Your task to perform on an android device: Show me popular videos on Youtube Image 0: 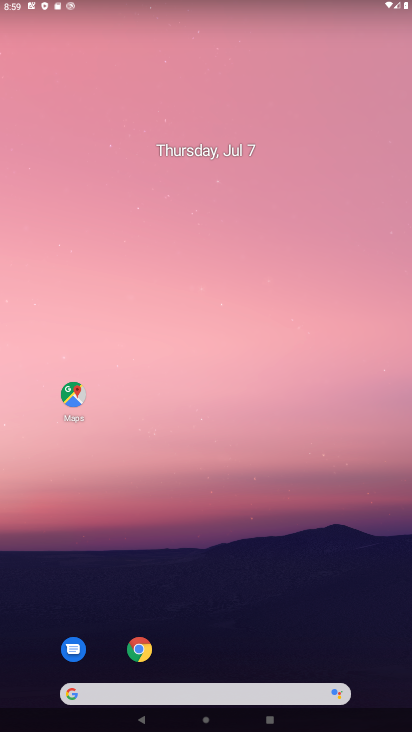
Step 0: drag from (229, 691) to (240, 196)
Your task to perform on an android device: Show me popular videos on Youtube Image 1: 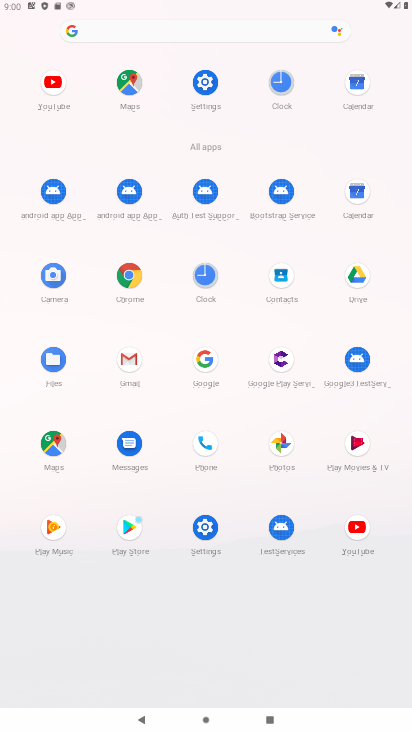
Step 1: click (361, 529)
Your task to perform on an android device: Show me popular videos on Youtube Image 2: 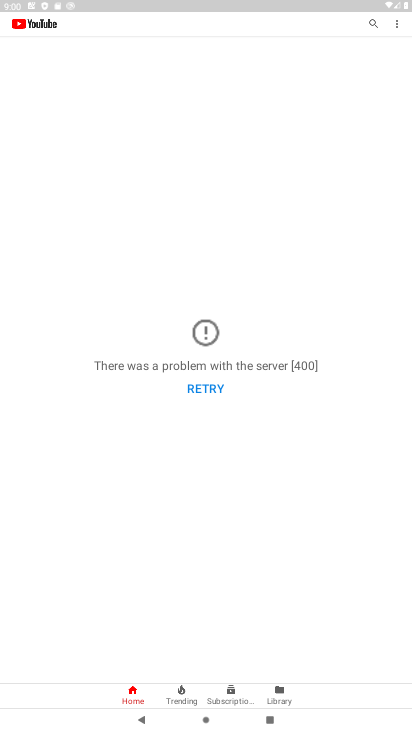
Step 2: task complete